Your task to perform on an android device: open chrome and create a bookmark for the current page Image 0: 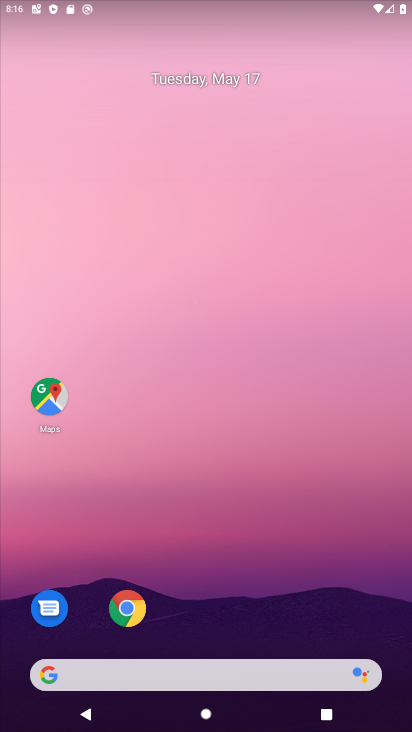
Step 0: click (127, 613)
Your task to perform on an android device: open chrome and create a bookmark for the current page Image 1: 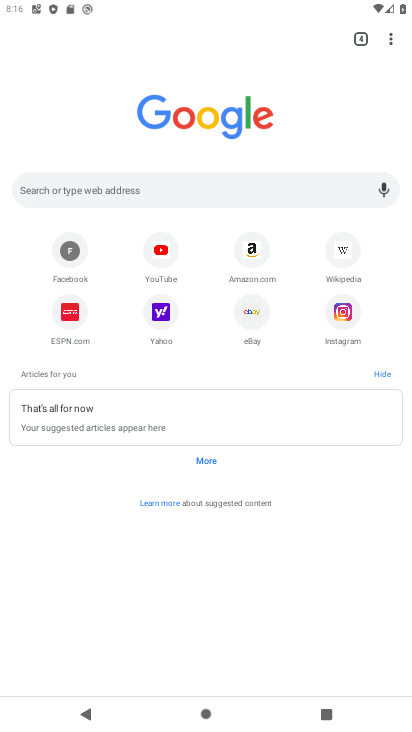
Step 1: click (390, 46)
Your task to perform on an android device: open chrome and create a bookmark for the current page Image 2: 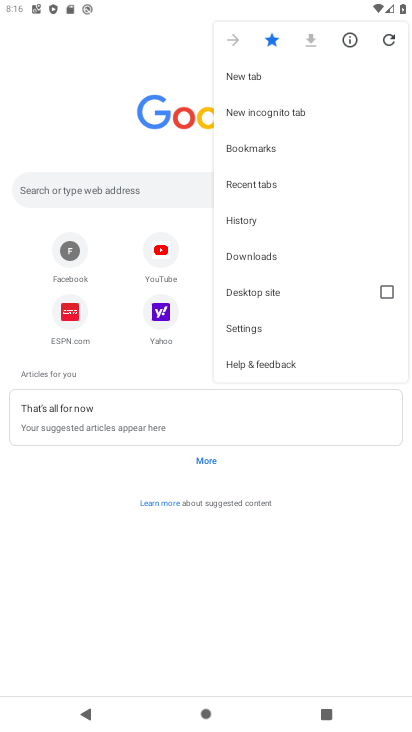
Step 2: task complete